Your task to perform on an android device: toggle priority inbox in the gmail app Image 0: 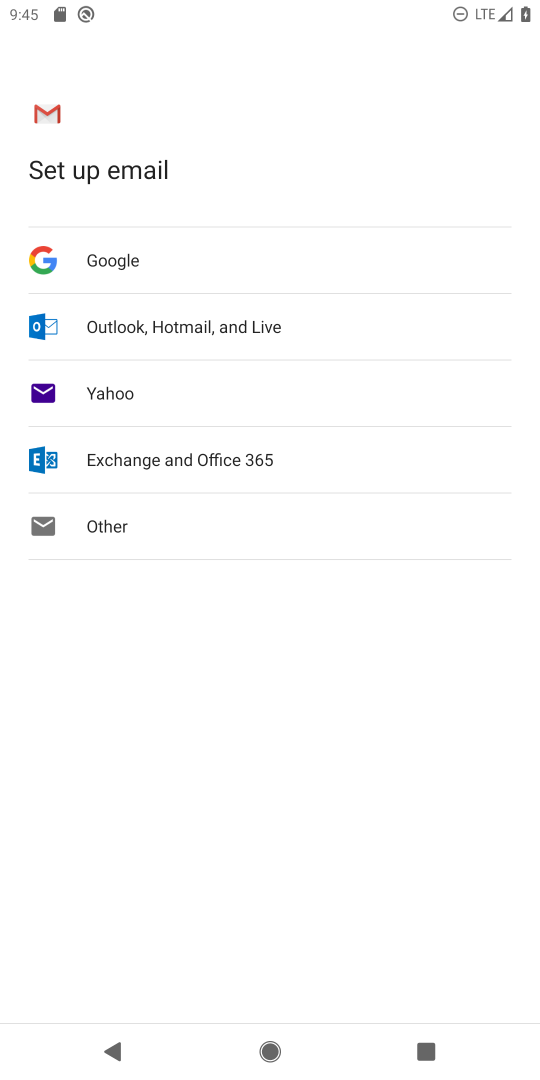
Step 0: press home button
Your task to perform on an android device: toggle priority inbox in the gmail app Image 1: 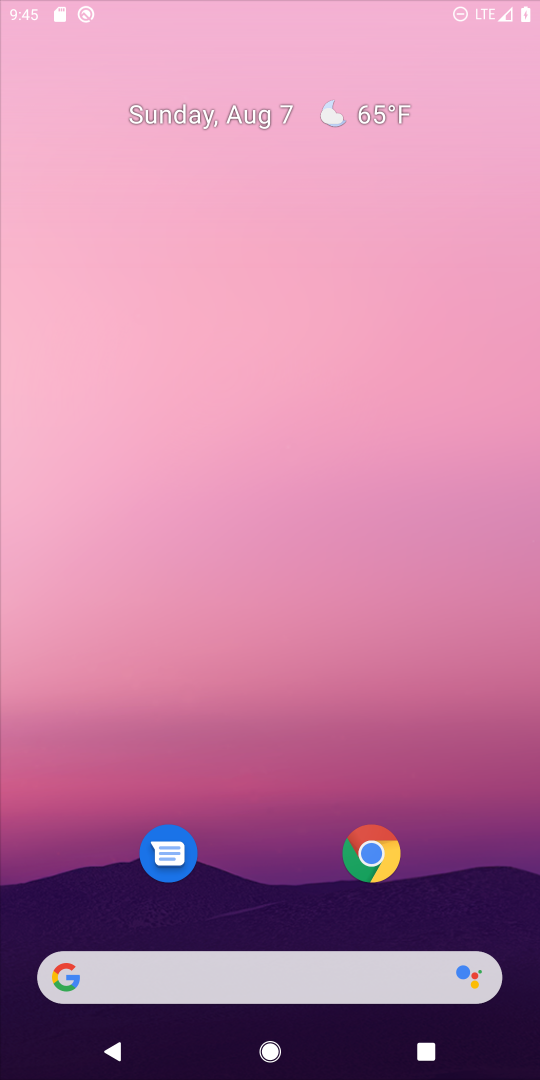
Step 1: drag from (308, 1005) to (322, 419)
Your task to perform on an android device: toggle priority inbox in the gmail app Image 2: 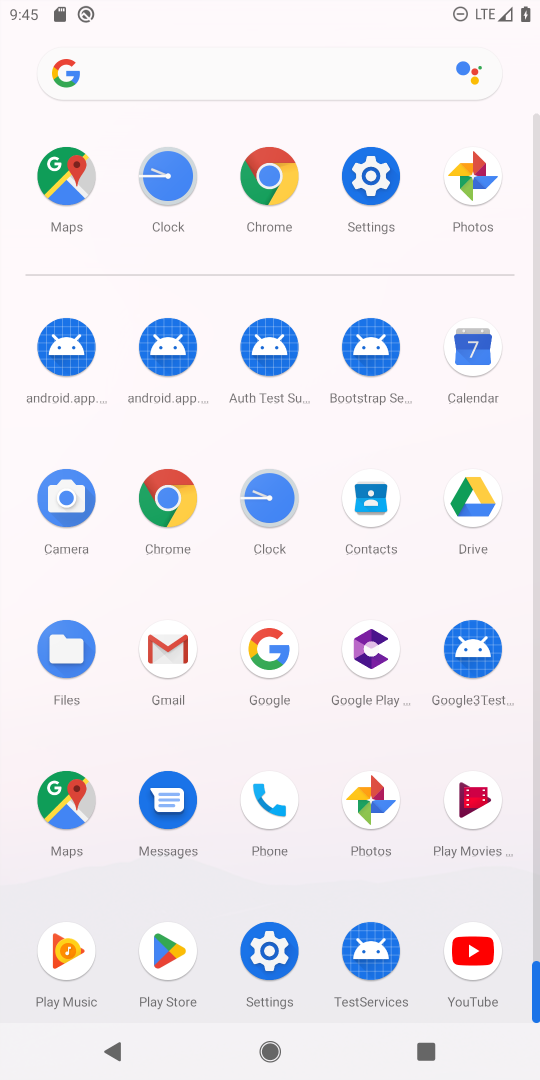
Step 2: click (160, 652)
Your task to perform on an android device: toggle priority inbox in the gmail app Image 3: 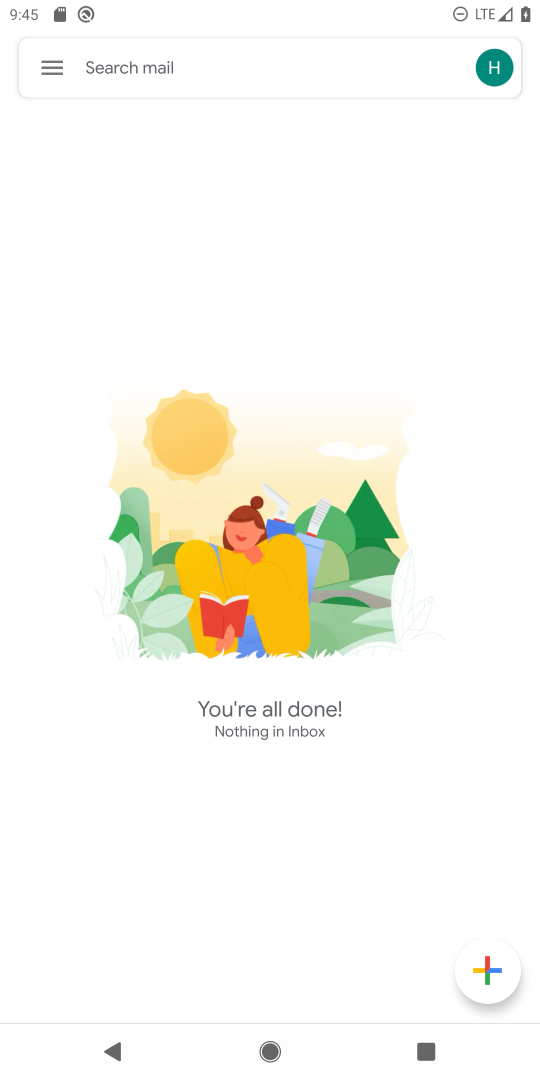
Step 3: click (44, 64)
Your task to perform on an android device: toggle priority inbox in the gmail app Image 4: 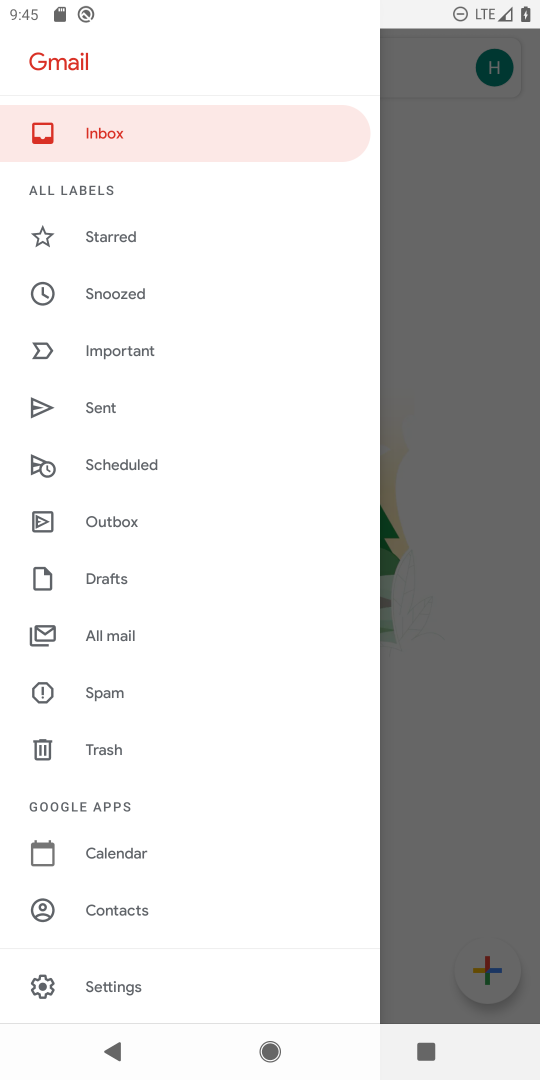
Step 4: click (104, 981)
Your task to perform on an android device: toggle priority inbox in the gmail app Image 5: 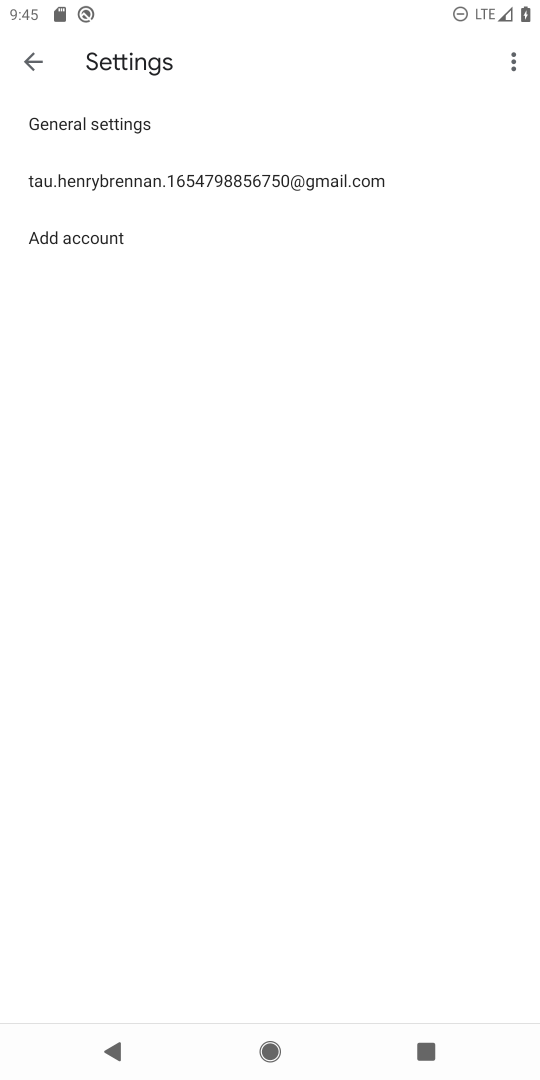
Step 5: click (108, 154)
Your task to perform on an android device: toggle priority inbox in the gmail app Image 6: 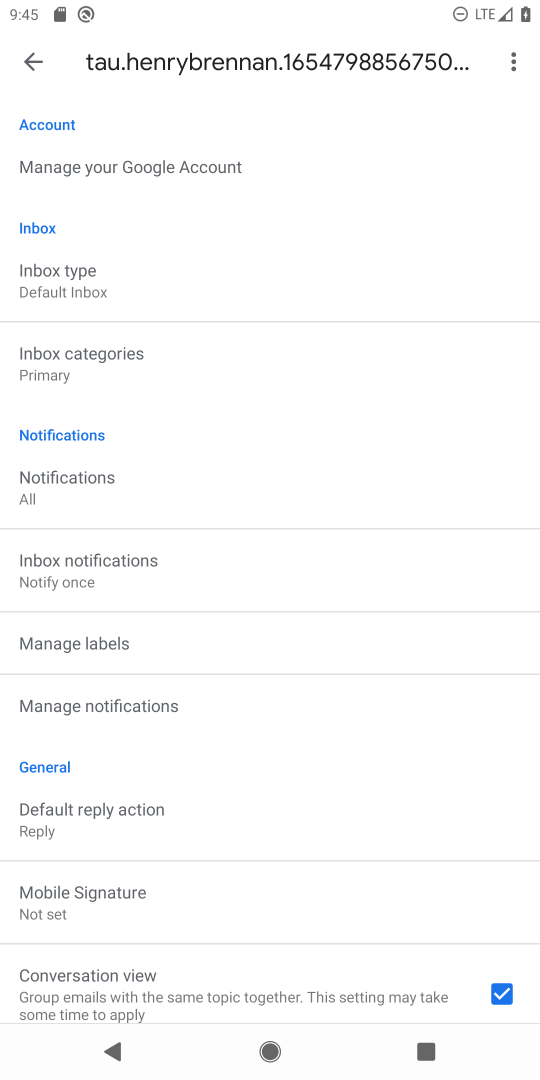
Step 6: click (68, 275)
Your task to perform on an android device: toggle priority inbox in the gmail app Image 7: 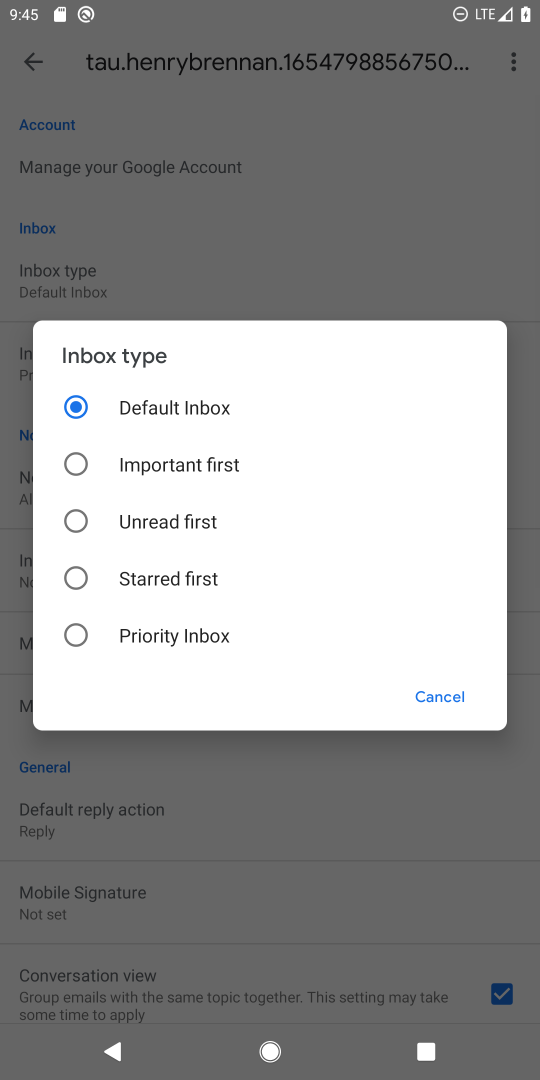
Step 7: click (127, 645)
Your task to perform on an android device: toggle priority inbox in the gmail app Image 8: 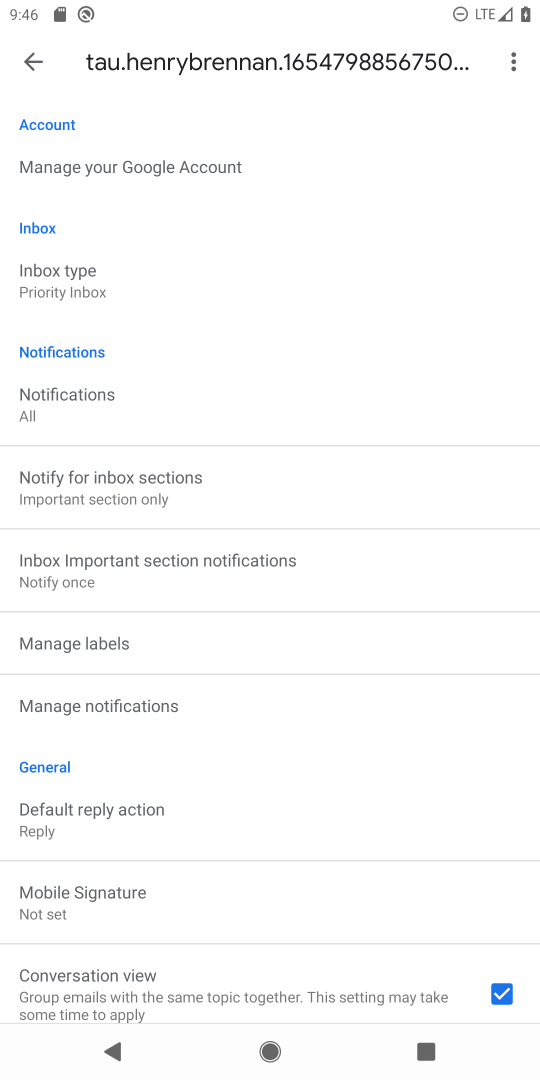
Step 8: task complete